Your task to perform on an android device: Go to notification settings Image 0: 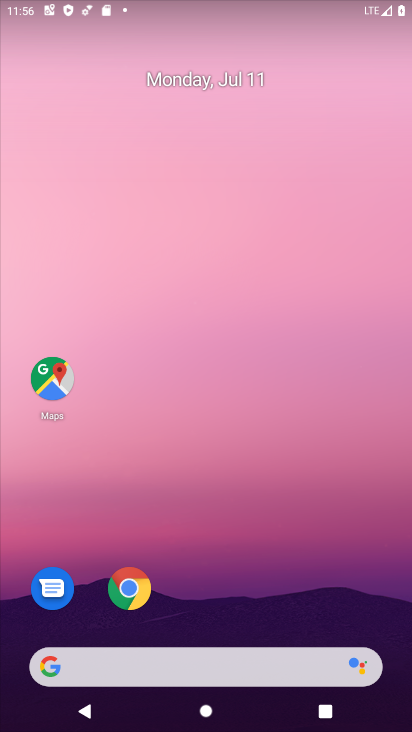
Step 0: drag from (310, 563) to (241, 85)
Your task to perform on an android device: Go to notification settings Image 1: 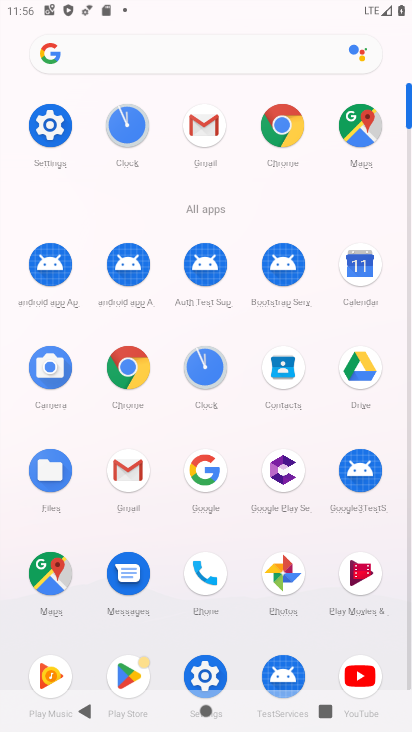
Step 1: click (58, 120)
Your task to perform on an android device: Go to notification settings Image 2: 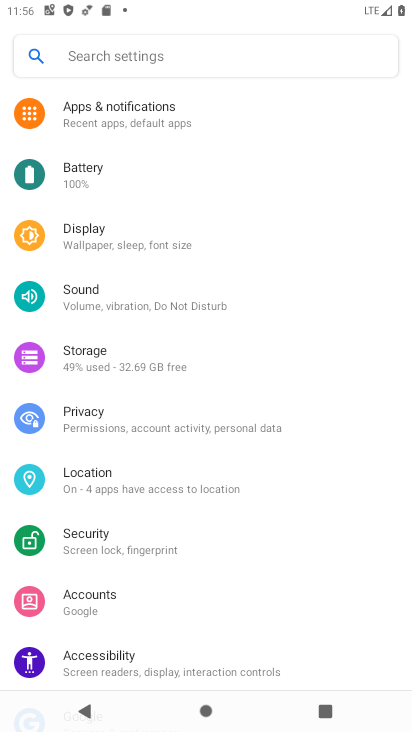
Step 2: click (122, 117)
Your task to perform on an android device: Go to notification settings Image 3: 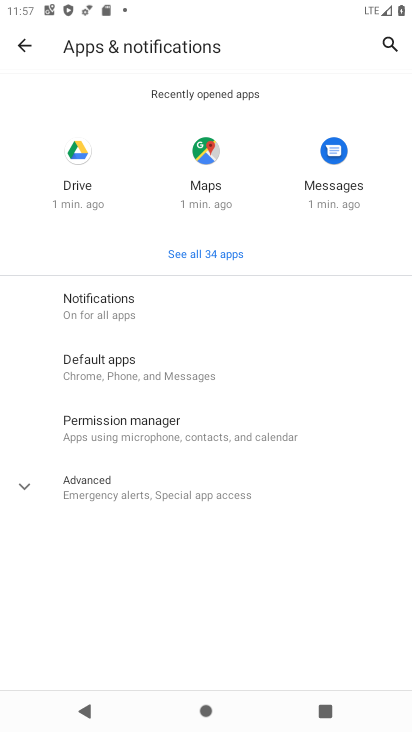
Step 3: click (89, 316)
Your task to perform on an android device: Go to notification settings Image 4: 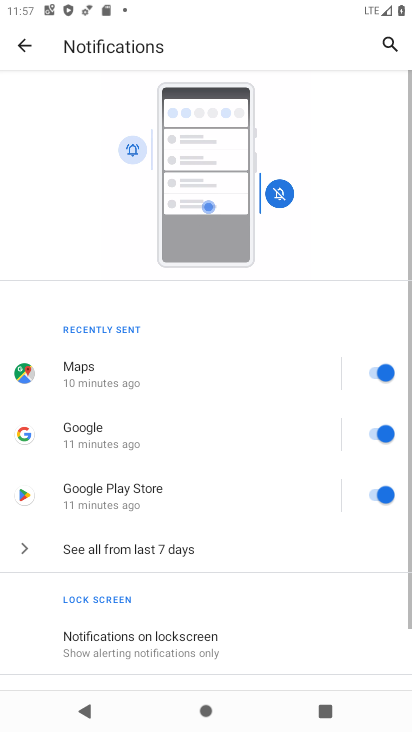
Step 4: click (88, 309)
Your task to perform on an android device: Go to notification settings Image 5: 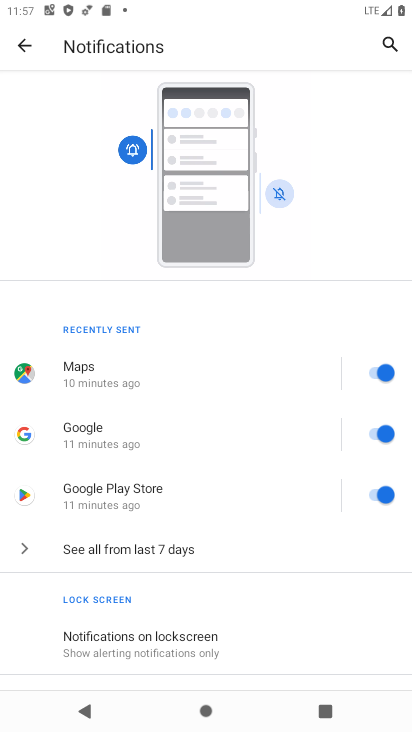
Step 5: task complete